Your task to perform on an android device: turn smart compose on in the gmail app Image 0: 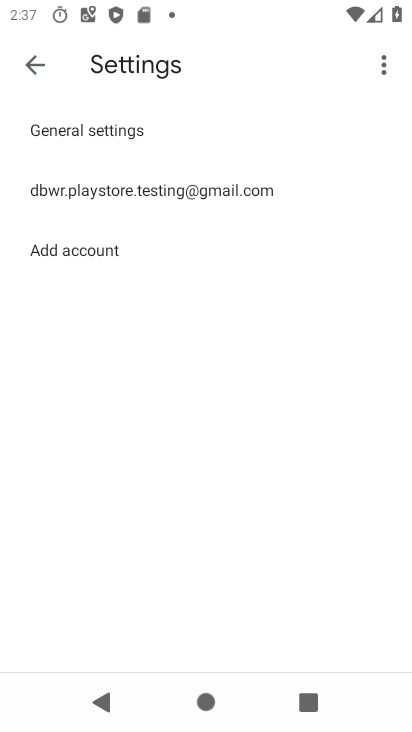
Step 0: drag from (175, 496) to (225, 267)
Your task to perform on an android device: turn smart compose on in the gmail app Image 1: 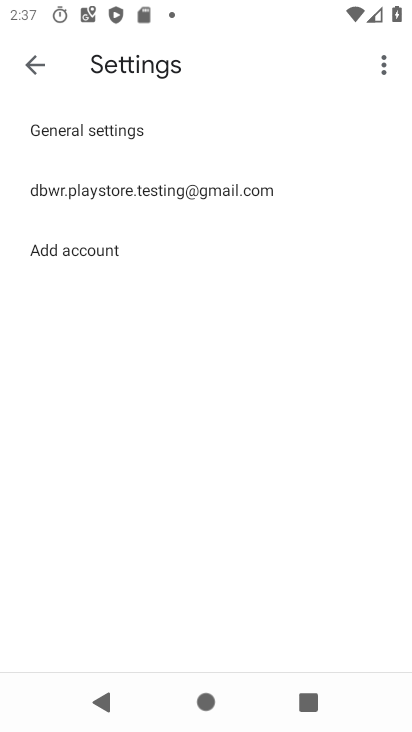
Step 1: press home button
Your task to perform on an android device: turn smart compose on in the gmail app Image 2: 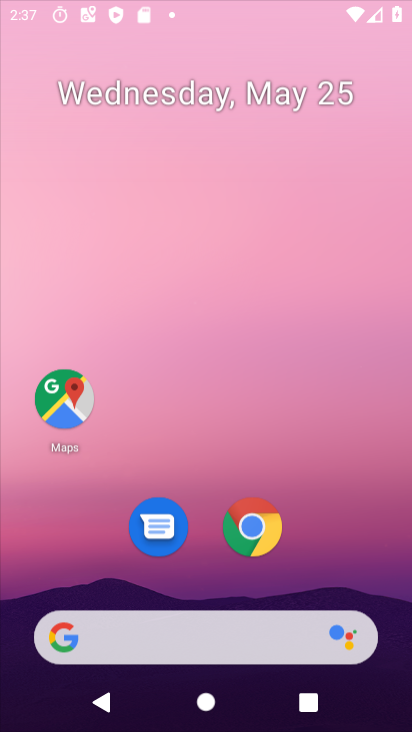
Step 2: drag from (138, 605) to (242, 99)
Your task to perform on an android device: turn smart compose on in the gmail app Image 3: 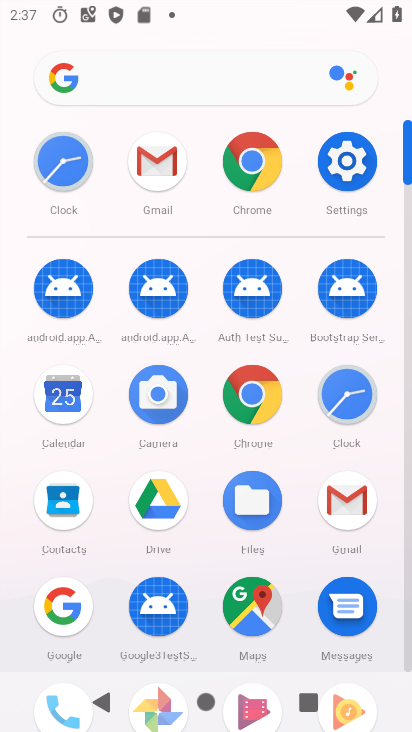
Step 3: click (363, 465)
Your task to perform on an android device: turn smart compose on in the gmail app Image 4: 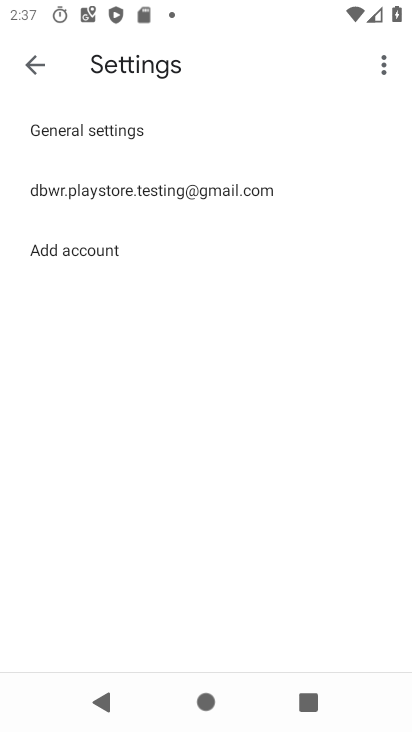
Step 4: click (159, 200)
Your task to perform on an android device: turn smart compose on in the gmail app Image 5: 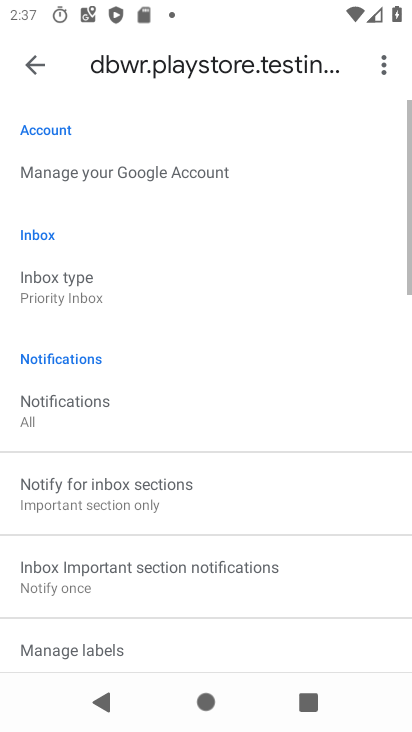
Step 5: task complete